Your task to perform on an android device: Clear the cart on walmart. Search for bose soundlink on walmart, select the first entry, add it to the cart, then select checkout. Image 0: 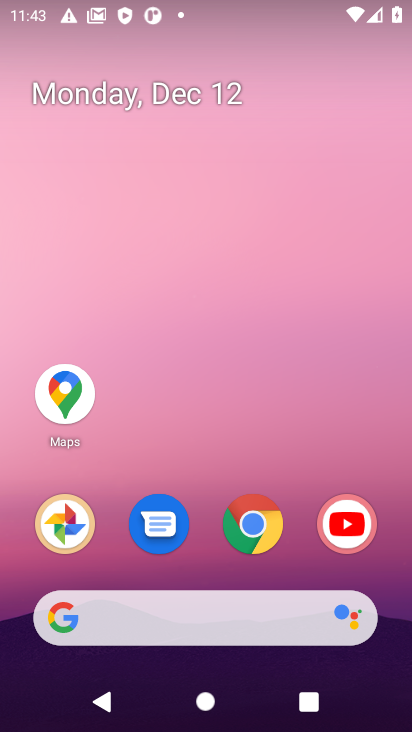
Step 0: click (259, 526)
Your task to perform on an android device: Clear the cart on walmart. Search for bose soundlink on walmart, select the first entry, add it to the cart, then select checkout. Image 1: 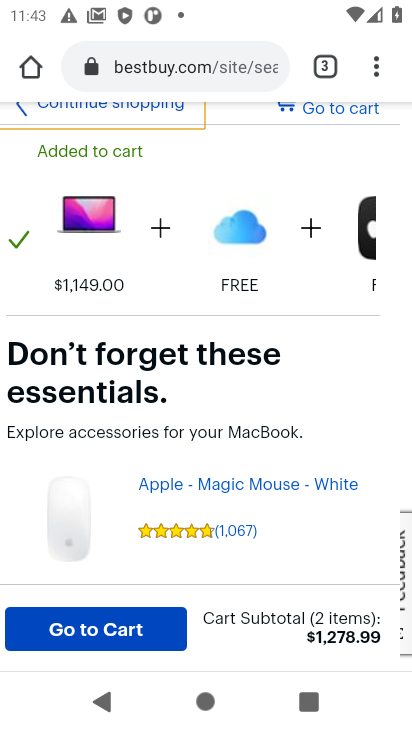
Step 1: click (180, 67)
Your task to perform on an android device: Clear the cart on walmart. Search for bose soundlink on walmart, select the first entry, add it to the cart, then select checkout. Image 2: 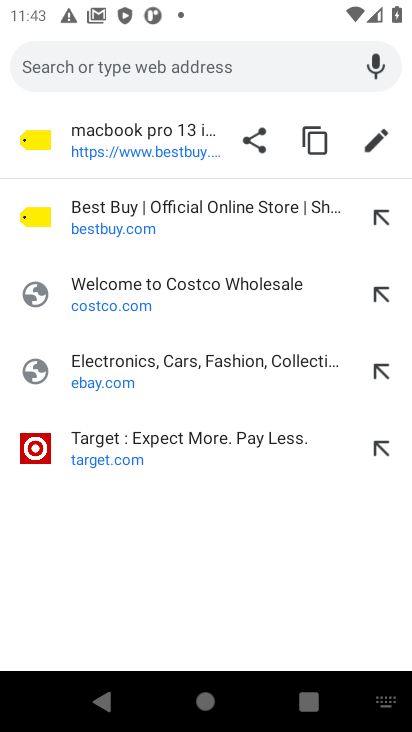
Step 2: type "walmart.com"
Your task to perform on an android device: Clear the cart on walmart. Search for bose soundlink on walmart, select the first entry, add it to the cart, then select checkout. Image 3: 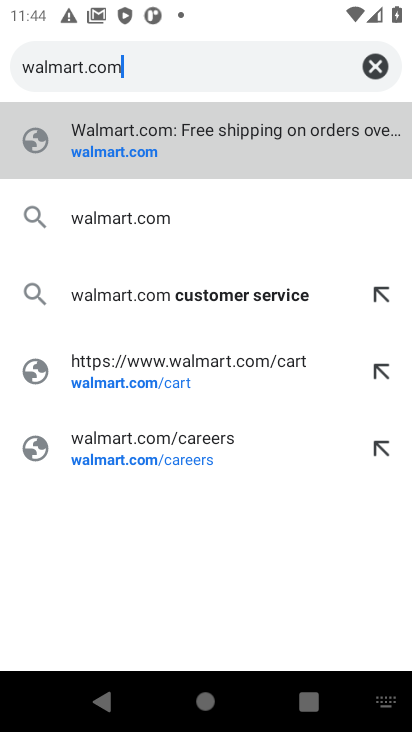
Step 3: click (119, 149)
Your task to perform on an android device: Clear the cart on walmart. Search for bose soundlink on walmart, select the first entry, add it to the cart, then select checkout. Image 4: 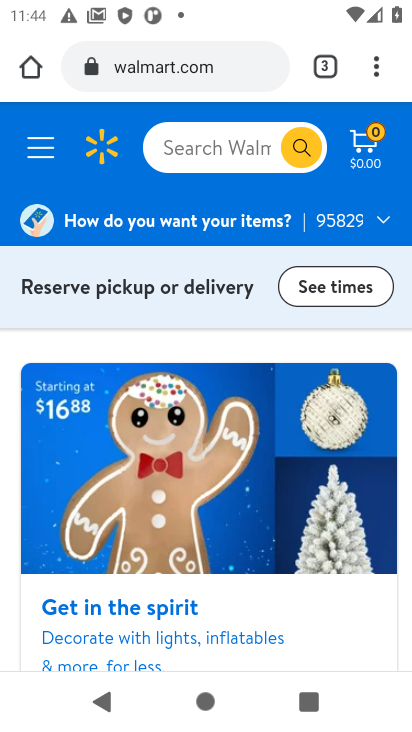
Step 4: click (369, 150)
Your task to perform on an android device: Clear the cart on walmart. Search for bose soundlink on walmart, select the first entry, add it to the cart, then select checkout. Image 5: 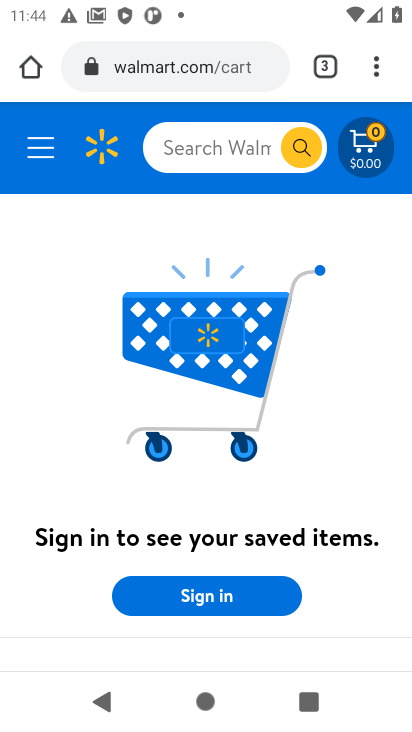
Step 5: click (180, 150)
Your task to perform on an android device: Clear the cart on walmart. Search for bose soundlink on walmart, select the first entry, add it to the cart, then select checkout. Image 6: 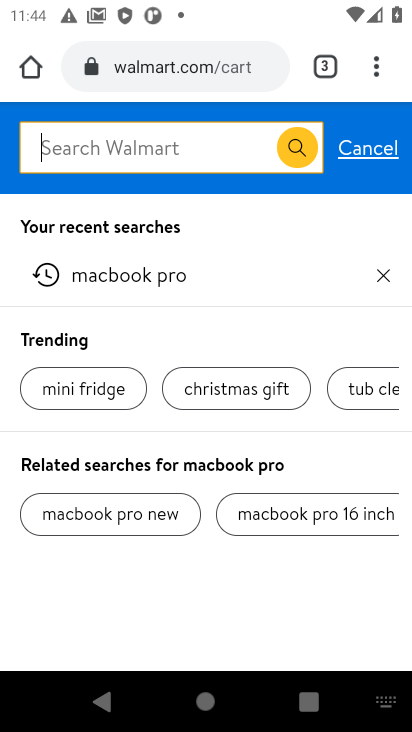
Step 6: type "bose soundlink "
Your task to perform on an android device: Clear the cart on walmart. Search for bose soundlink on walmart, select the first entry, add it to the cart, then select checkout. Image 7: 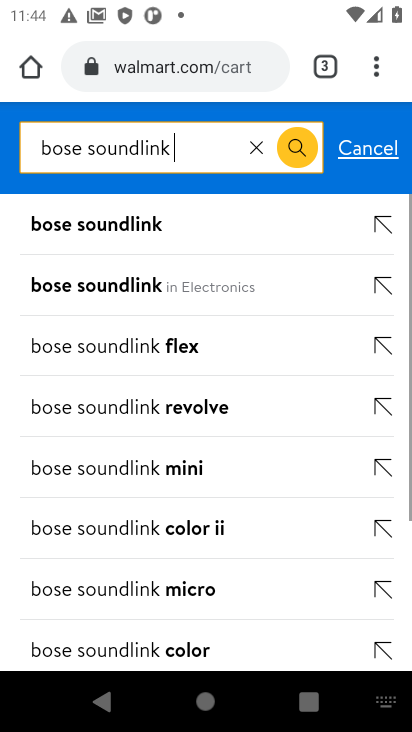
Step 7: click (92, 227)
Your task to perform on an android device: Clear the cart on walmart. Search for bose soundlink on walmart, select the first entry, add it to the cart, then select checkout. Image 8: 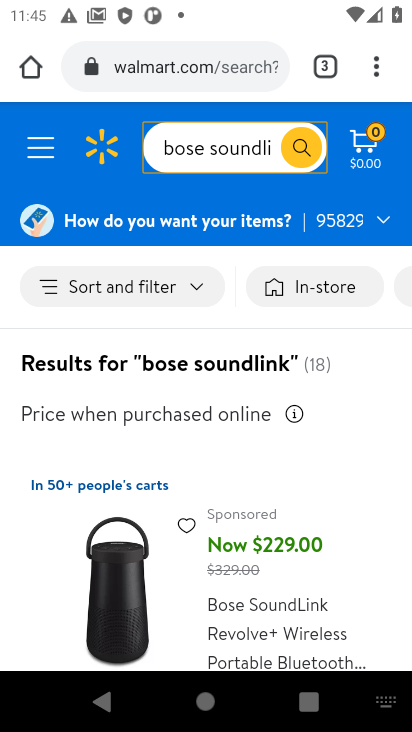
Step 8: drag from (163, 488) to (192, 291)
Your task to perform on an android device: Clear the cart on walmart. Search for bose soundlink on walmart, select the first entry, add it to the cart, then select checkout. Image 9: 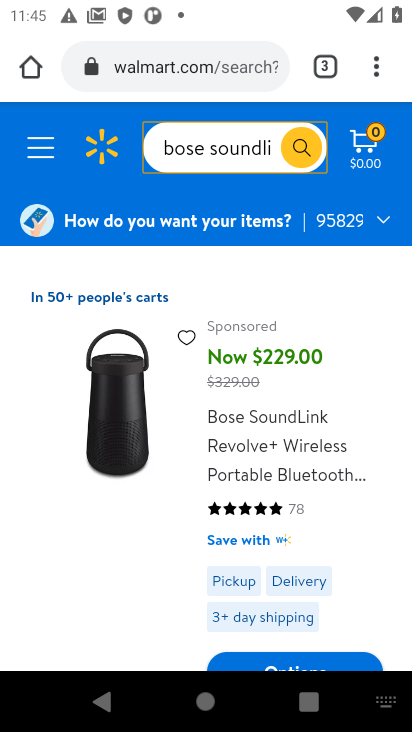
Step 9: drag from (240, 472) to (262, 351)
Your task to perform on an android device: Clear the cart on walmart. Search for bose soundlink on walmart, select the first entry, add it to the cart, then select checkout. Image 10: 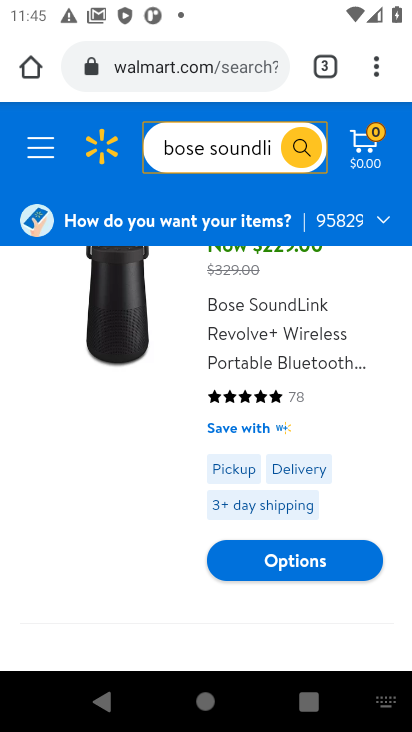
Step 10: click (310, 369)
Your task to perform on an android device: Clear the cart on walmart. Search for bose soundlink on walmart, select the first entry, add it to the cart, then select checkout. Image 11: 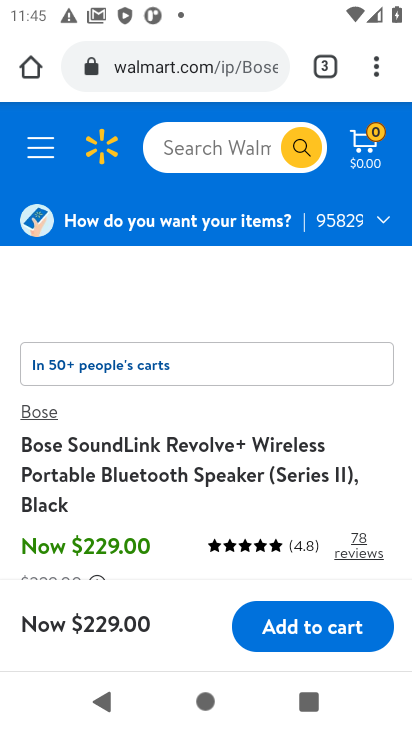
Step 11: click (295, 628)
Your task to perform on an android device: Clear the cart on walmart. Search for bose soundlink on walmart, select the first entry, add it to the cart, then select checkout. Image 12: 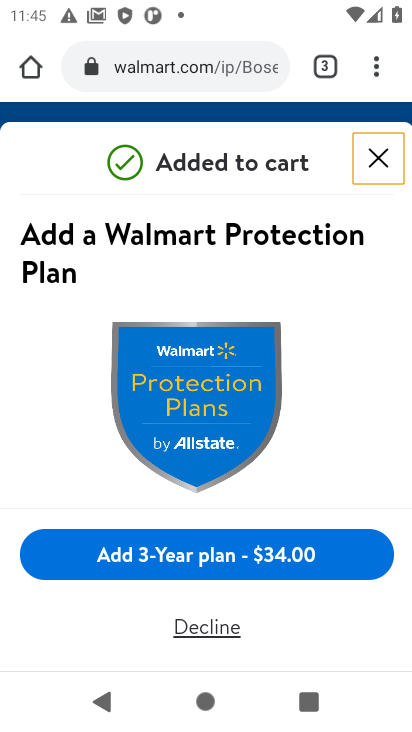
Step 12: click (372, 164)
Your task to perform on an android device: Clear the cart on walmart. Search for bose soundlink on walmart, select the first entry, add it to the cart, then select checkout. Image 13: 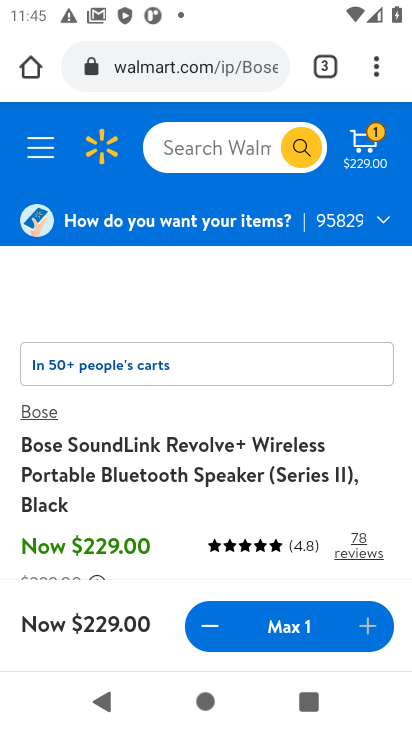
Step 13: click (362, 147)
Your task to perform on an android device: Clear the cart on walmart. Search for bose soundlink on walmart, select the first entry, add it to the cart, then select checkout. Image 14: 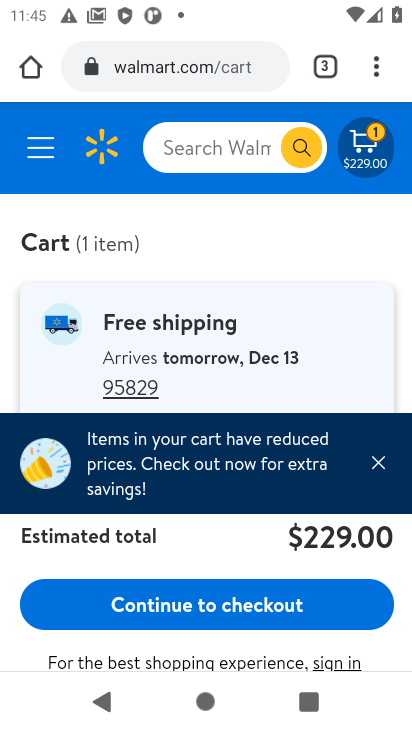
Step 14: click (206, 603)
Your task to perform on an android device: Clear the cart on walmart. Search for bose soundlink on walmart, select the first entry, add it to the cart, then select checkout. Image 15: 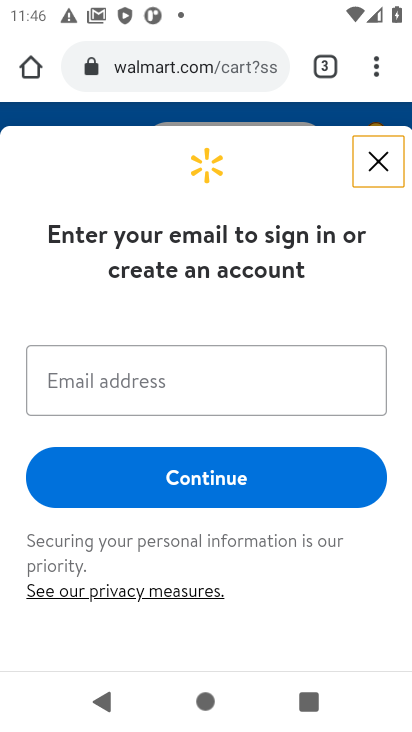
Step 15: task complete